Your task to perform on an android device: Go to CNN.com Image 0: 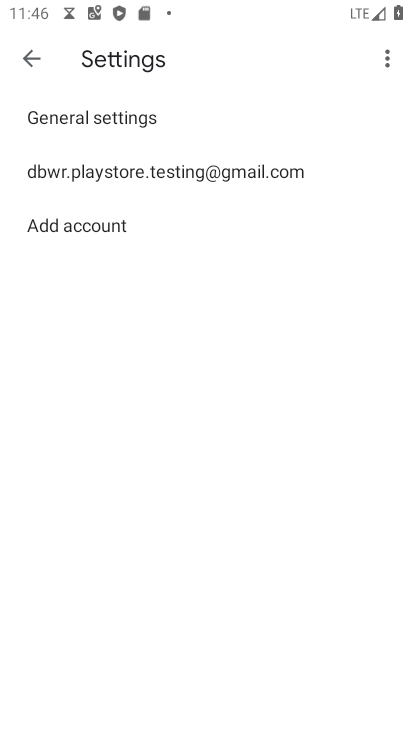
Step 0: press home button
Your task to perform on an android device: Go to CNN.com Image 1: 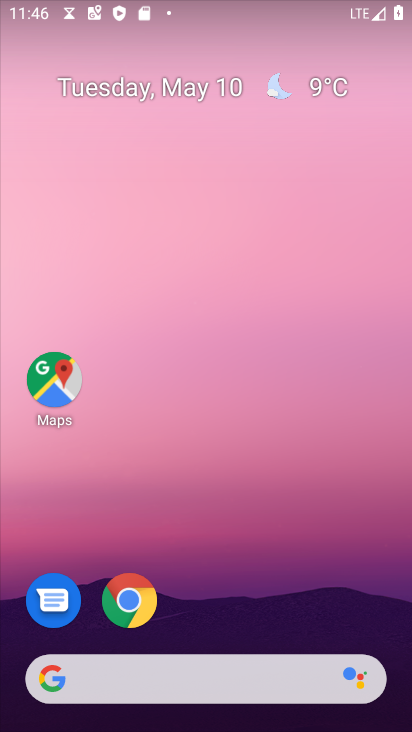
Step 1: click (123, 605)
Your task to perform on an android device: Go to CNN.com Image 2: 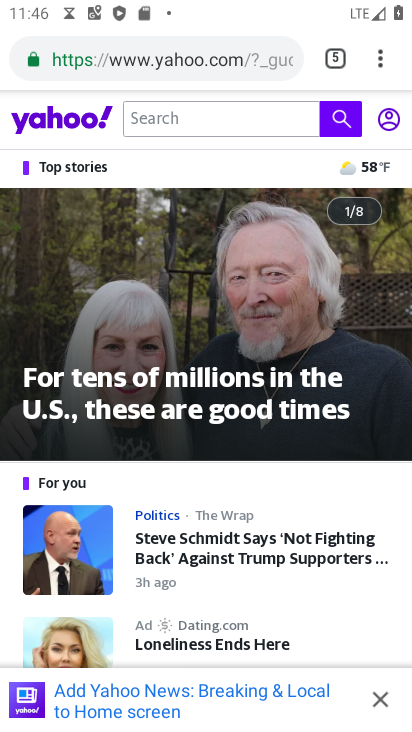
Step 2: click (329, 58)
Your task to perform on an android device: Go to CNN.com Image 3: 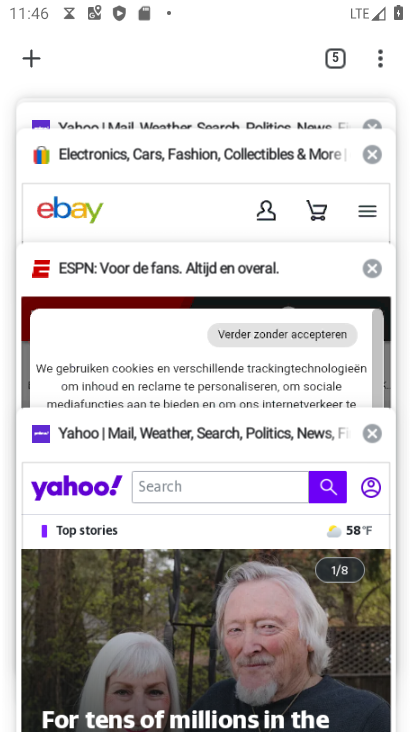
Step 3: drag from (149, 192) to (149, 445)
Your task to perform on an android device: Go to CNN.com Image 4: 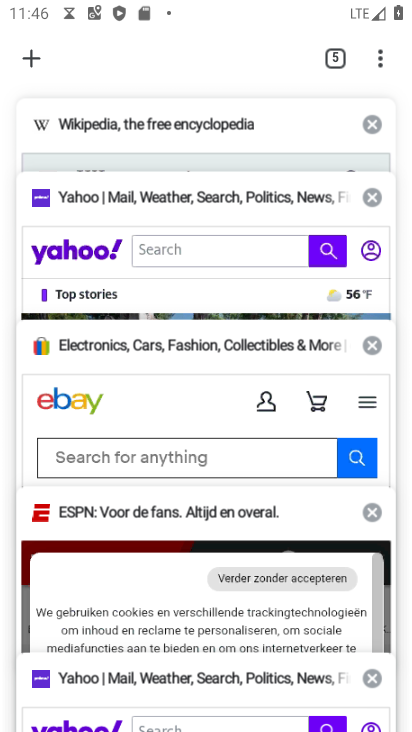
Step 4: click (32, 61)
Your task to perform on an android device: Go to CNN.com Image 5: 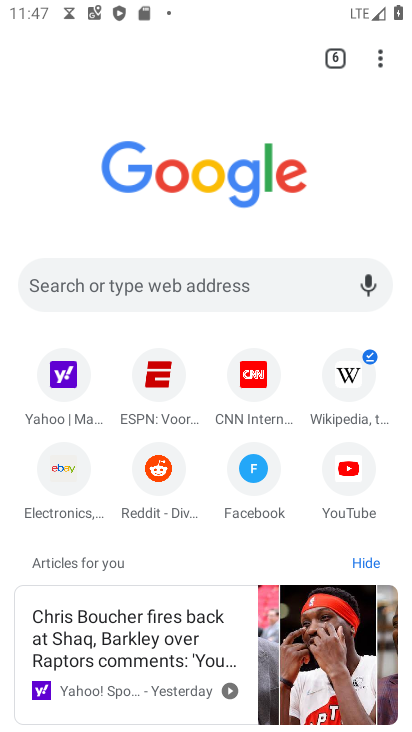
Step 5: click (253, 388)
Your task to perform on an android device: Go to CNN.com Image 6: 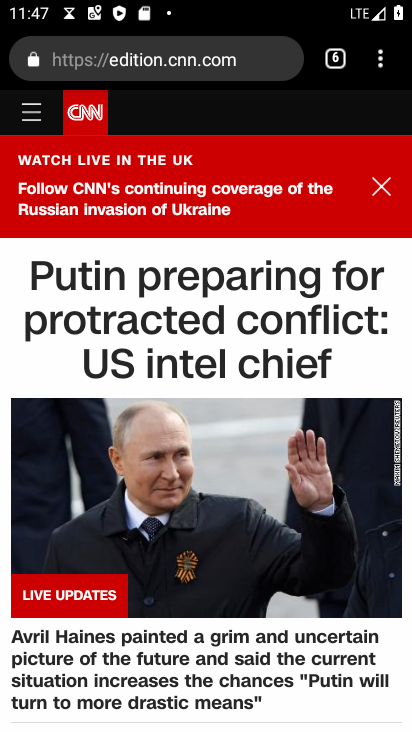
Step 6: task complete